Your task to perform on an android device: check google app version Image 0: 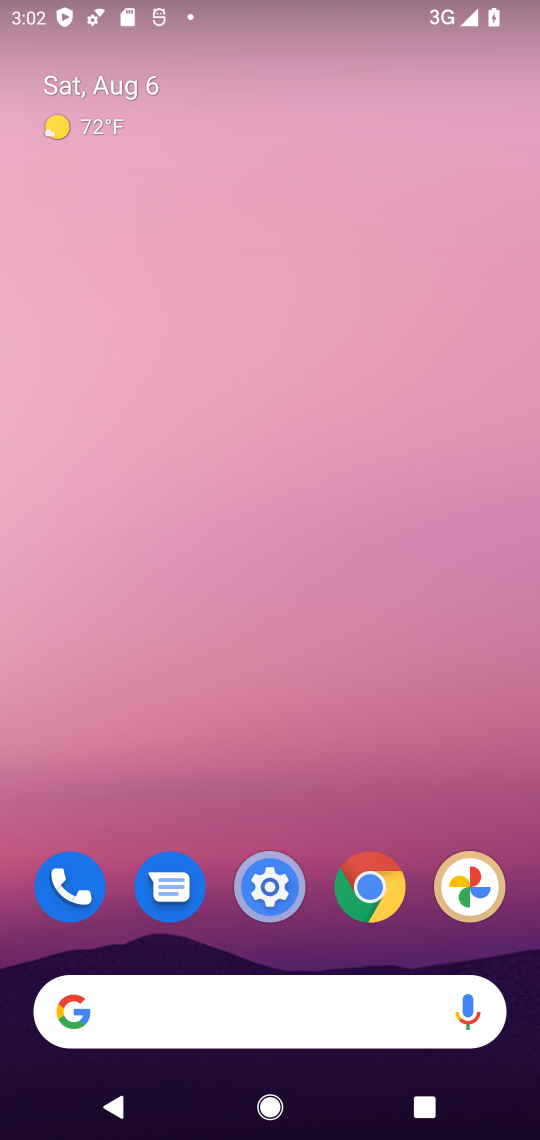
Step 0: drag from (398, 776) to (420, 315)
Your task to perform on an android device: check google app version Image 1: 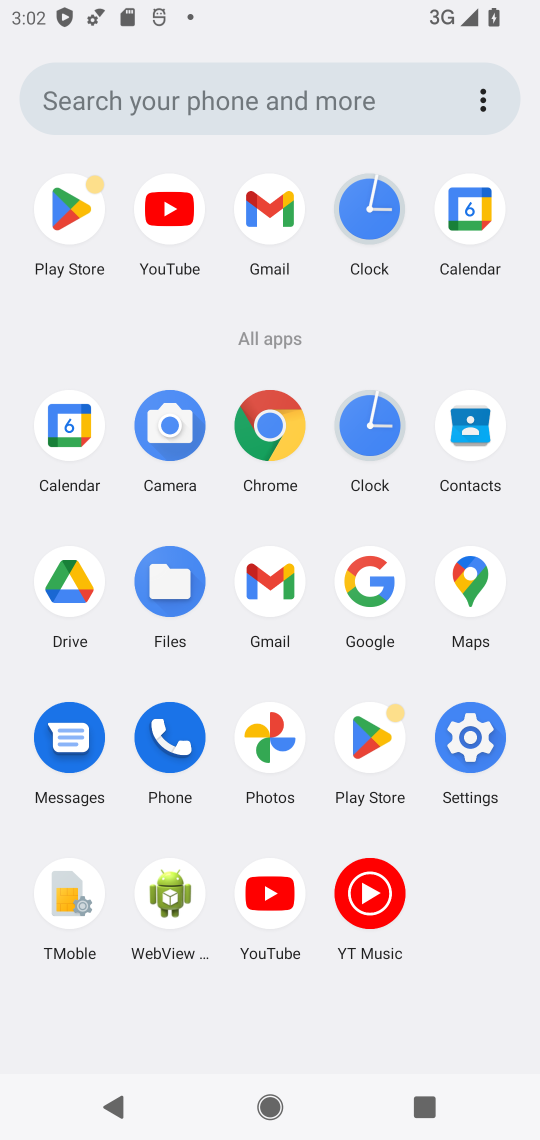
Step 1: click (373, 584)
Your task to perform on an android device: check google app version Image 2: 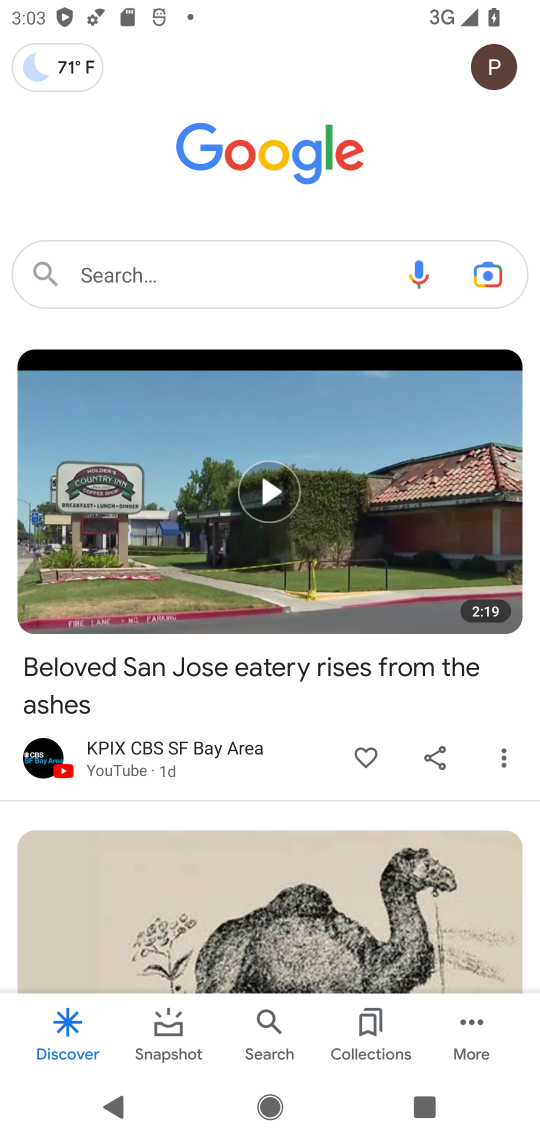
Step 2: click (468, 1026)
Your task to perform on an android device: check google app version Image 3: 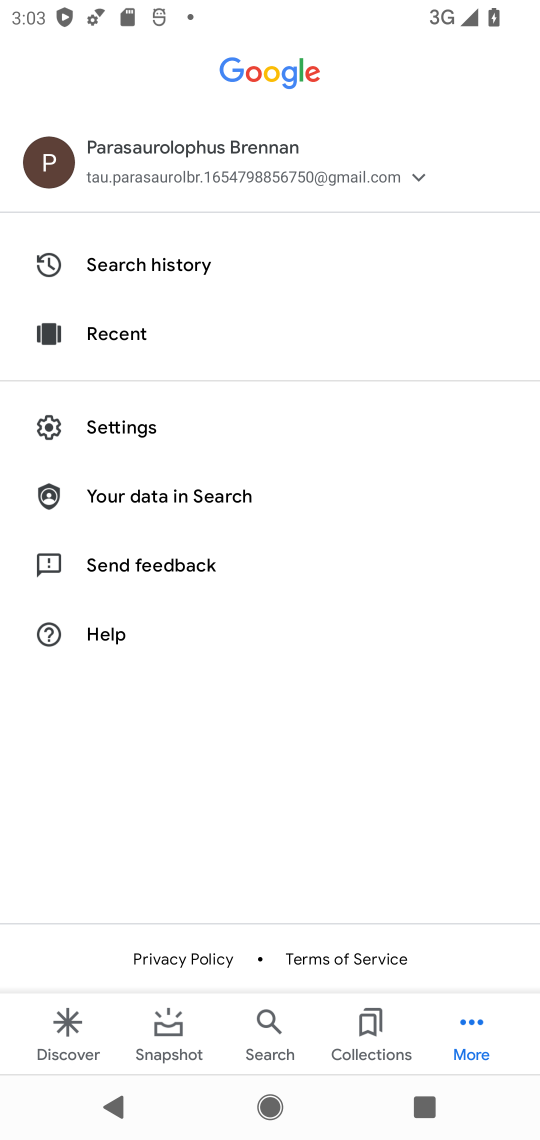
Step 3: click (147, 426)
Your task to perform on an android device: check google app version Image 4: 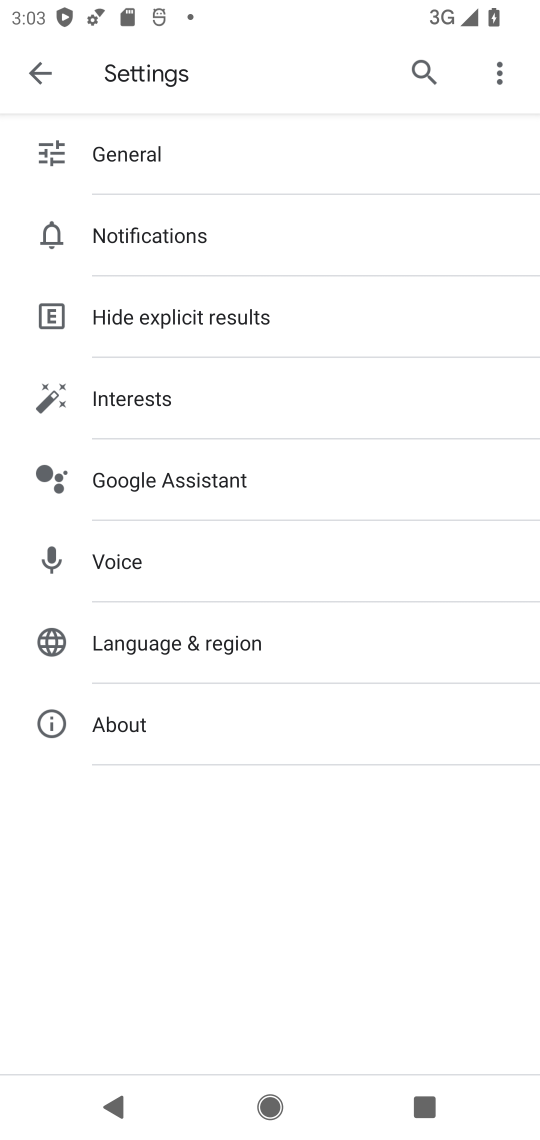
Step 4: click (205, 736)
Your task to perform on an android device: check google app version Image 5: 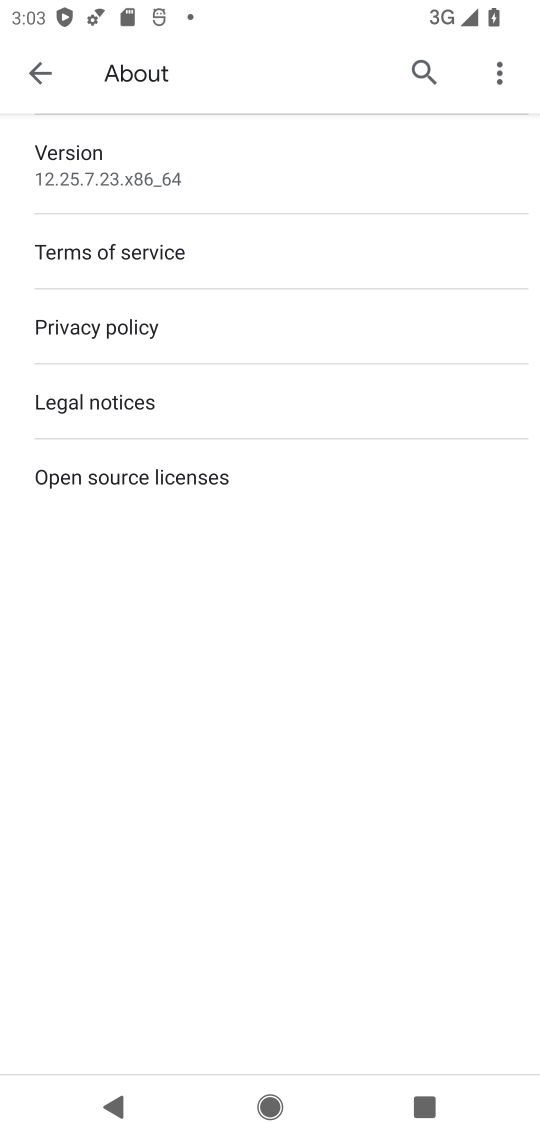
Step 5: task complete